Your task to perform on an android device: toggle sleep mode Image 0: 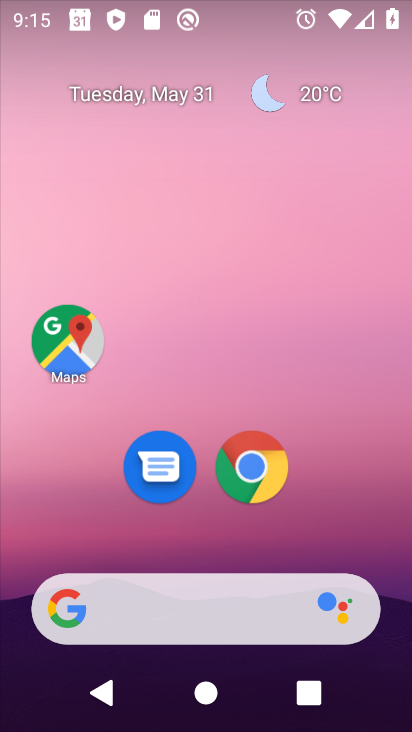
Step 0: drag from (263, 671) to (410, 492)
Your task to perform on an android device: toggle sleep mode Image 1: 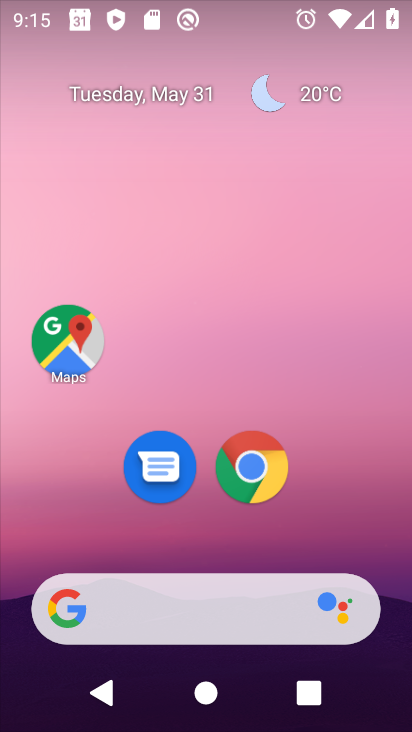
Step 1: drag from (231, 430) to (250, 226)
Your task to perform on an android device: toggle sleep mode Image 2: 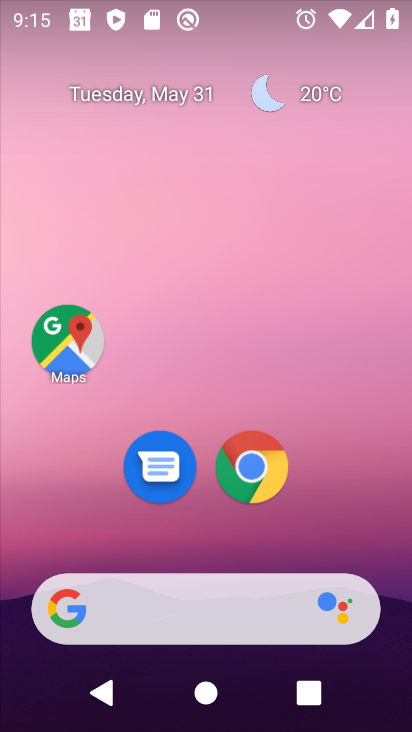
Step 2: drag from (221, 545) to (288, 135)
Your task to perform on an android device: toggle sleep mode Image 3: 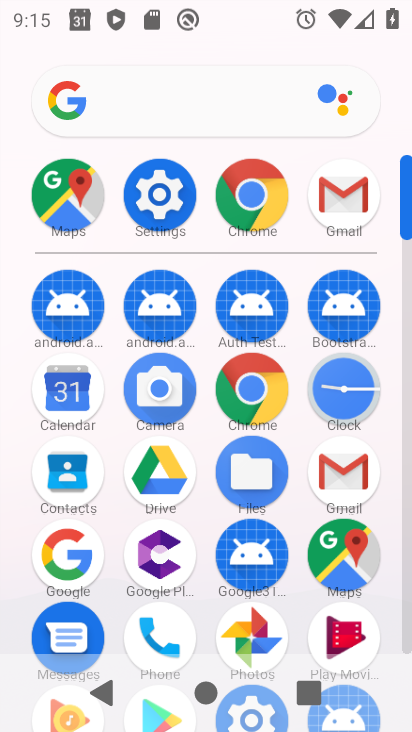
Step 3: drag from (195, 556) to (258, 169)
Your task to perform on an android device: toggle sleep mode Image 4: 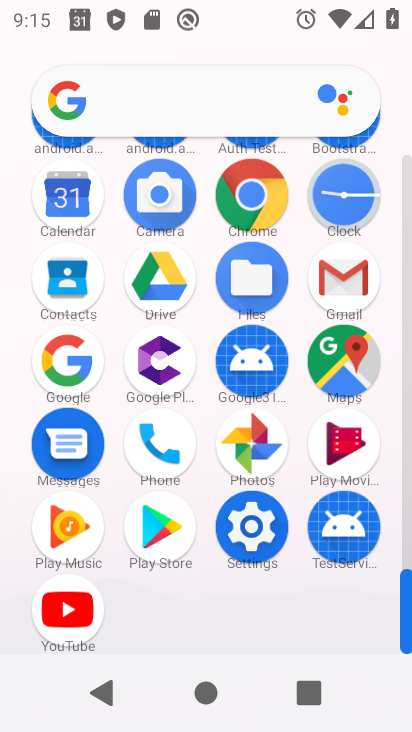
Step 4: drag from (190, 217) to (99, 730)
Your task to perform on an android device: toggle sleep mode Image 5: 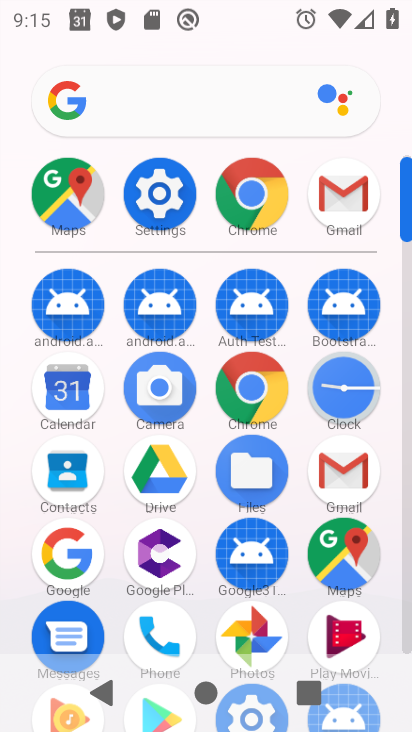
Step 5: click (159, 187)
Your task to perform on an android device: toggle sleep mode Image 6: 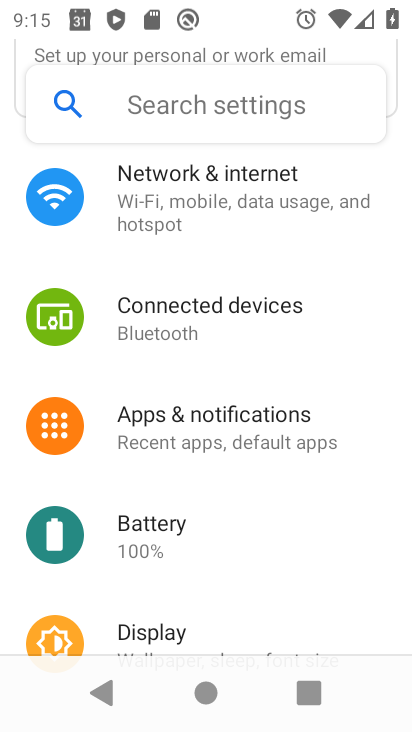
Step 6: click (212, 434)
Your task to perform on an android device: toggle sleep mode Image 7: 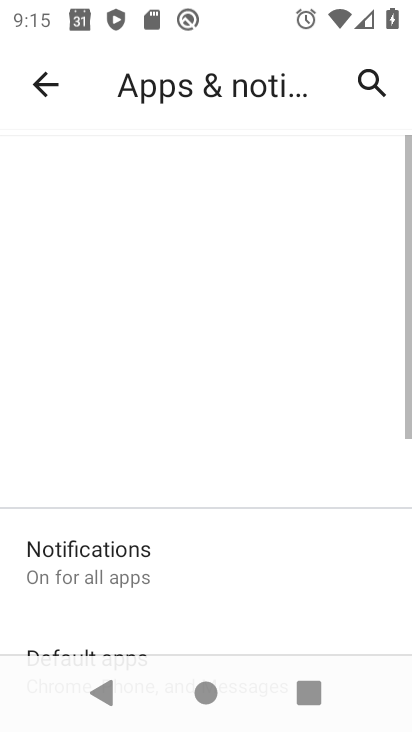
Step 7: drag from (235, 529) to (279, 130)
Your task to perform on an android device: toggle sleep mode Image 8: 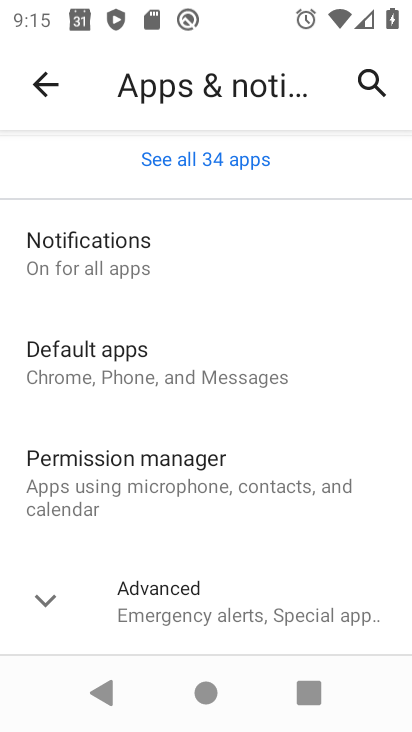
Step 8: click (160, 248)
Your task to perform on an android device: toggle sleep mode Image 9: 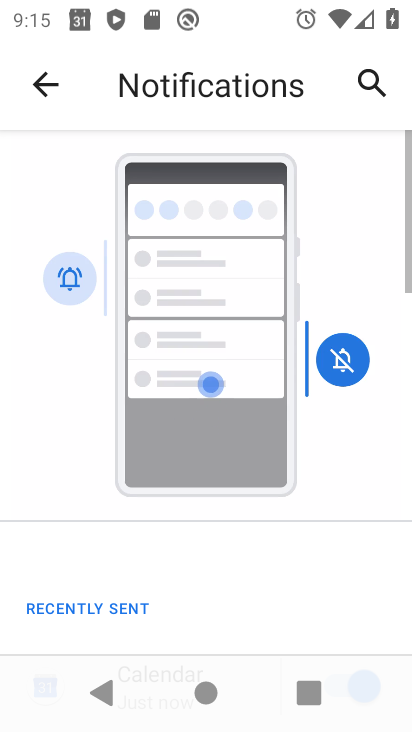
Step 9: drag from (215, 560) to (299, 100)
Your task to perform on an android device: toggle sleep mode Image 10: 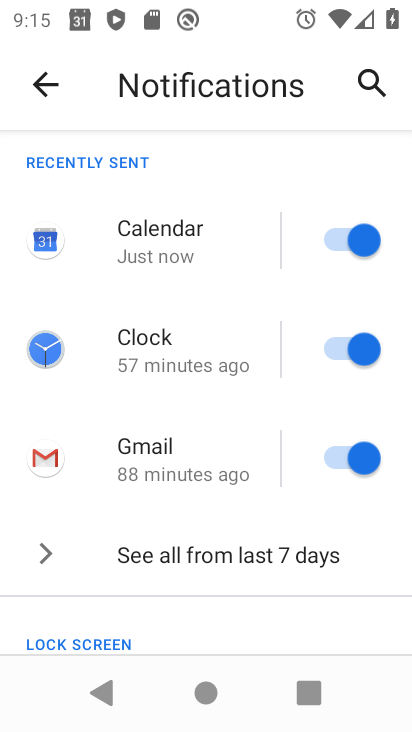
Step 10: drag from (184, 557) to (225, 213)
Your task to perform on an android device: toggle sleep mode Image 11: 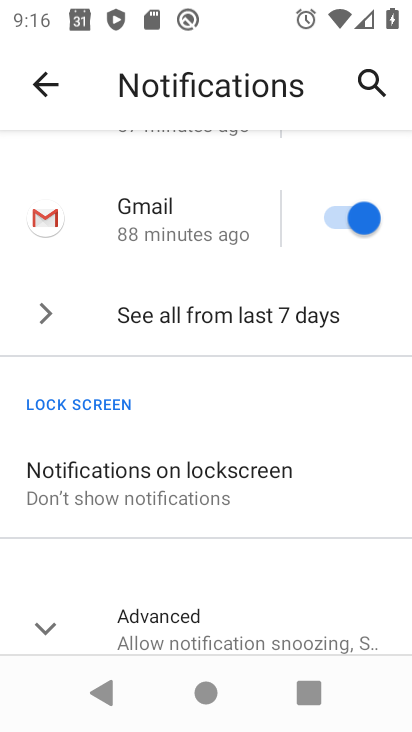
Step 11: drag from (151, 561) to (243, 342)
Your task to perform on an android device: toggle sleep mode Image 12: 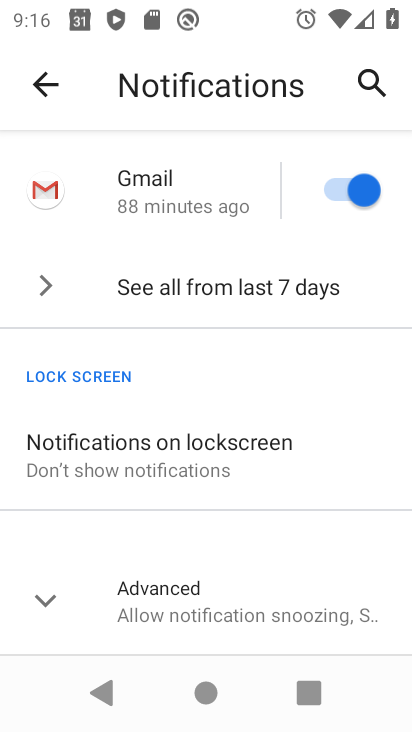
Step 12: drag from (216, 568) to (278, 312)
Your task to perform on an android device: toggle sleep mode Image 13: 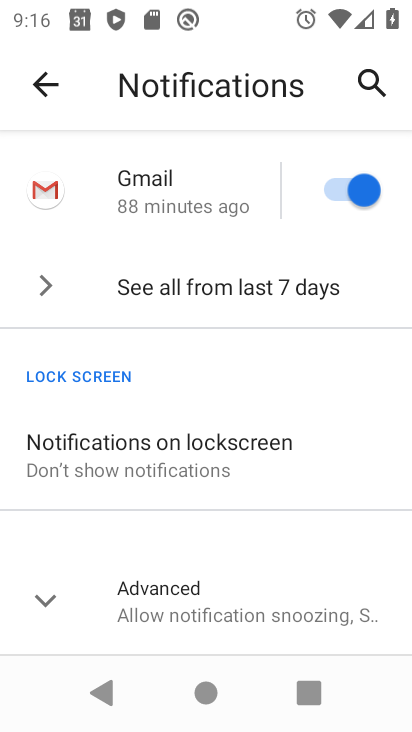
Step 13: click (189, 606)
Your task to perform on an android device: toggle sleep mode Image 14: 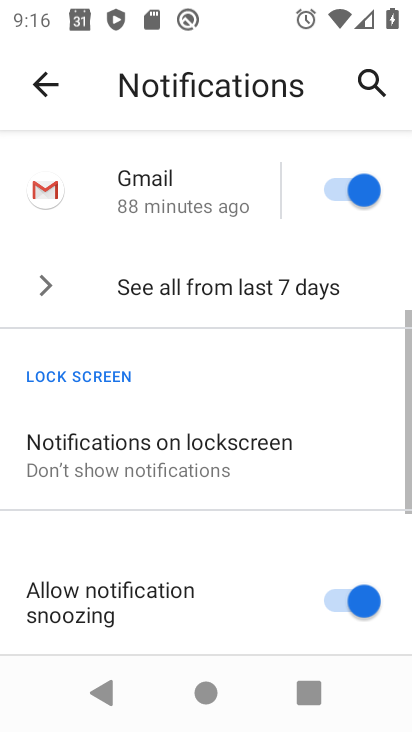
Step 14: drag from (189, 603) to (301, 287)
Your task to perform on an android device: toggle sleep mode Image 15: 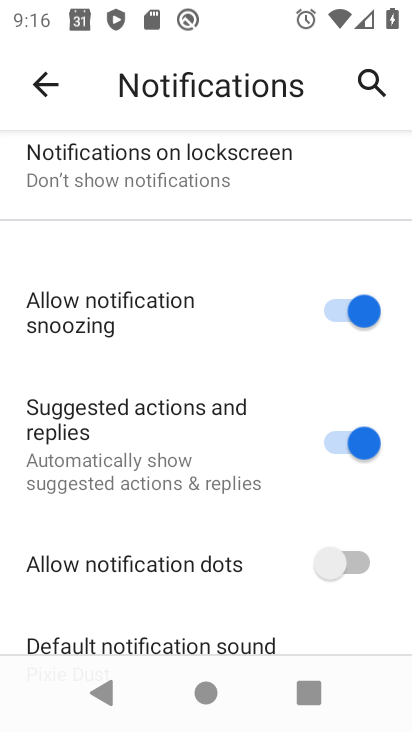
Step 15: drag from (235, 506) to (271, 165)
Your task to perform on an android device: toggle sleep mode Image 16: 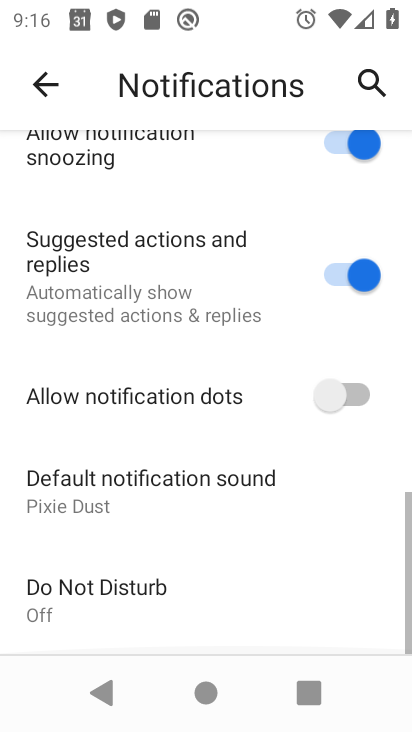
Step 16: drag from (254, 225) to (305, 728)
Your task to perform on an android device: toggle sleep mode Image 17: 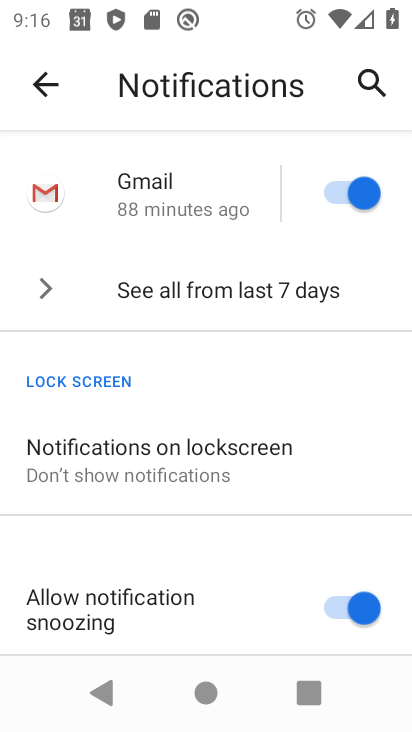
Step 17: click (176, 467)
Your task to perform on an android device: toggle sleep mode Image 18: 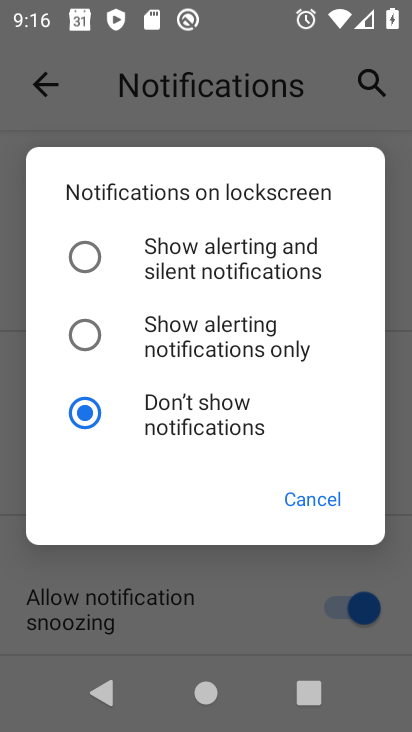
Step 18: click (321, 503)
Your task to perform on an android device: toggle sleep mode Image 19: 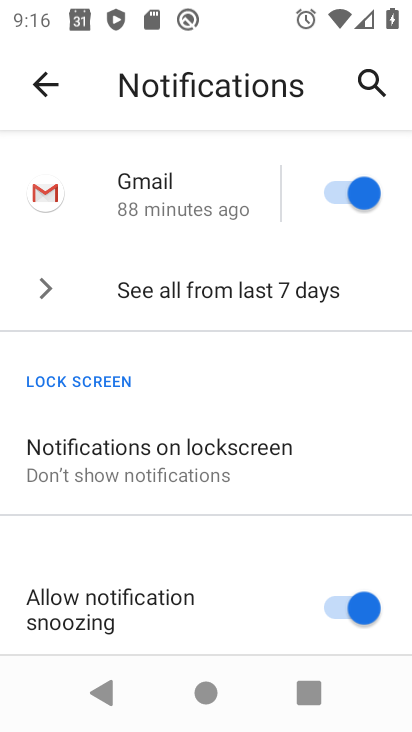
Step 19: drag from (230, 559) to (310, 170)
Your task to perform on an android device: toggle sleep mode Image 20: 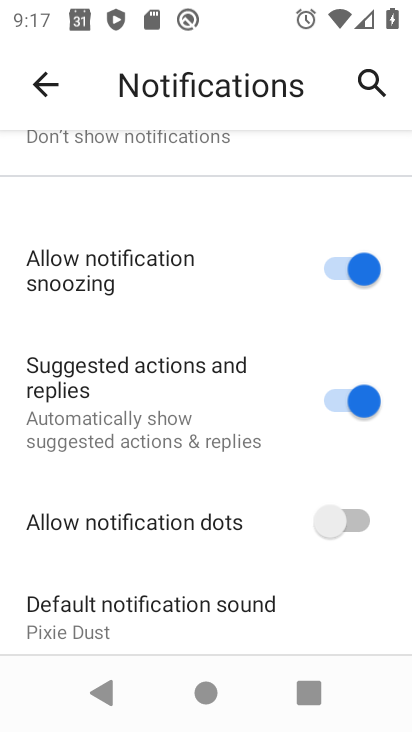
Step 20: click (36, 93)
Your task to perform on an android device: toggle sleep mode Image 21: 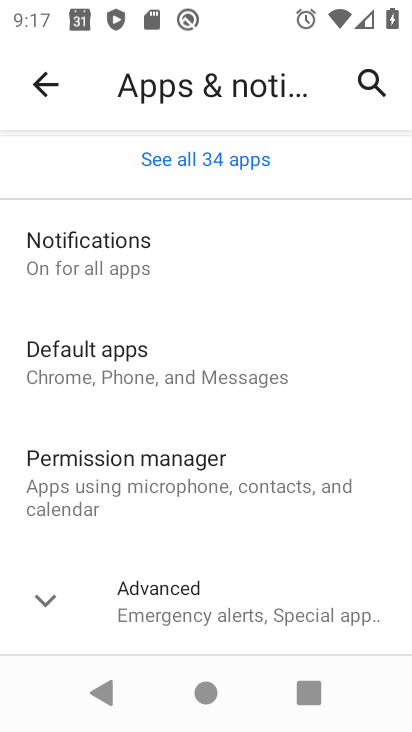
Step 21: click (41, 96)
Your task to perform on an android device: toggle sleep mode Image 22: 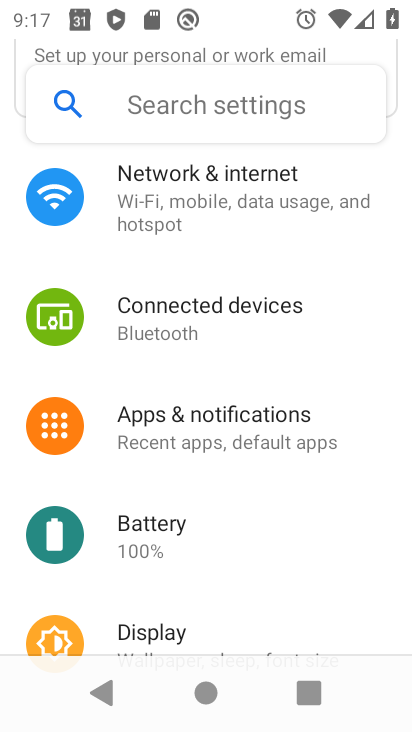
Step 22: click (144, 632)
Your task to perform on an android device: toggle sleep mode Image 23: 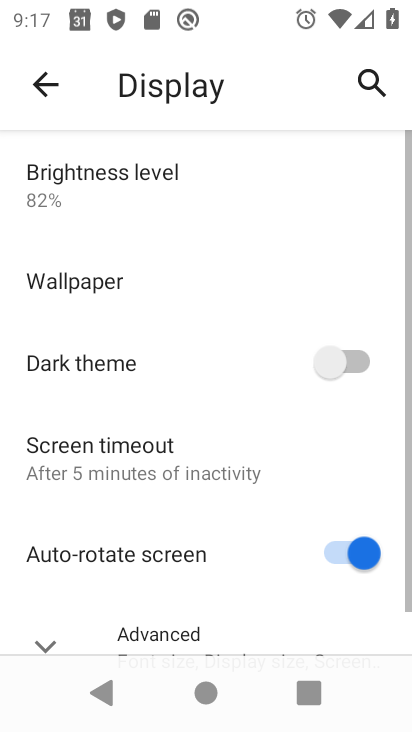
Step 23: click (198, 449)
Your task to perform on an android device: toggle sleep mode Image 24: 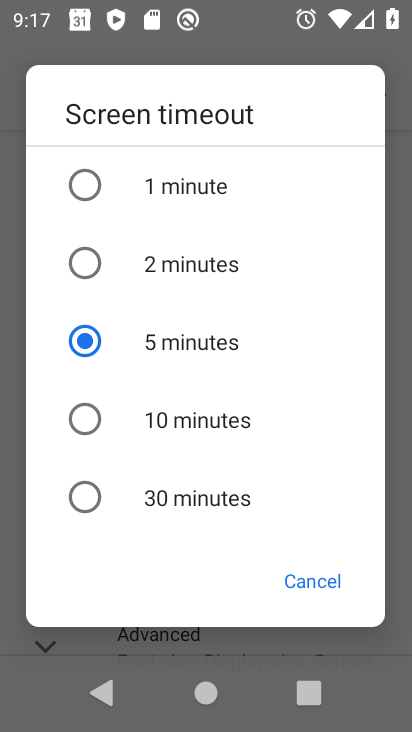
Step 24: task complete